Your task to perform on an android device: find which apps use the phone's location Image 0: 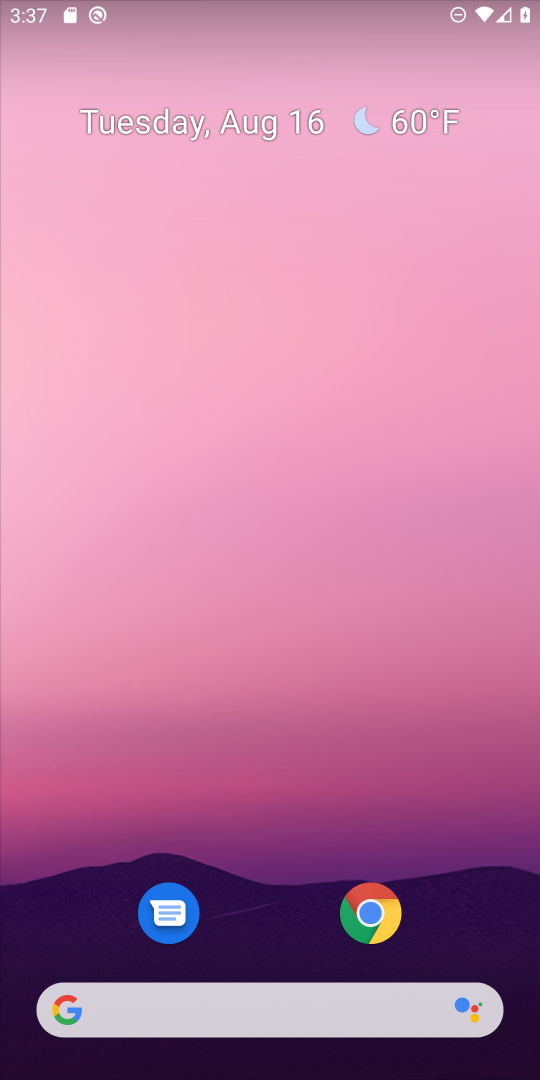
Step 0: drag from (470, 794) to (405, 111)
Your task to perform on an android device: find which apps use the phone's location Image 1: 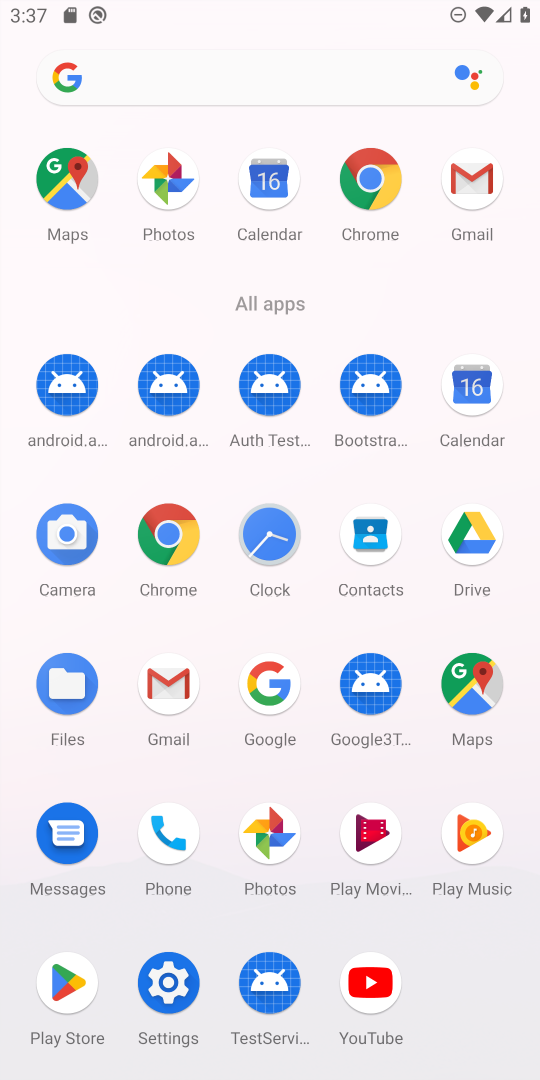
Step 1: click (168, 987)
Your task to perform on an android device: find which apps use the phone's location Image 2: 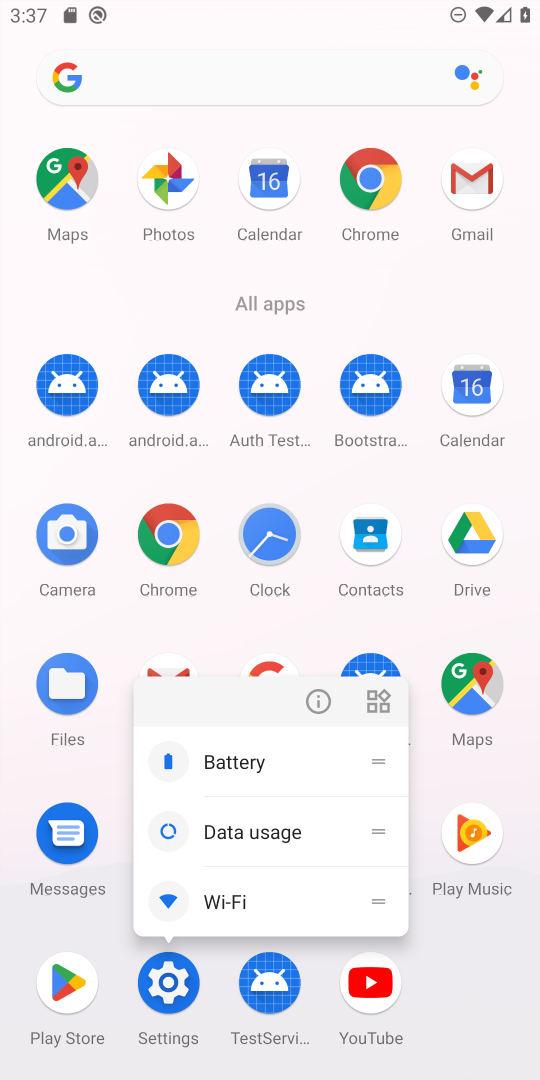
Step 2: click (169, 980)
Your task to perform on an android device: find which apps use the phone's location Image 3: 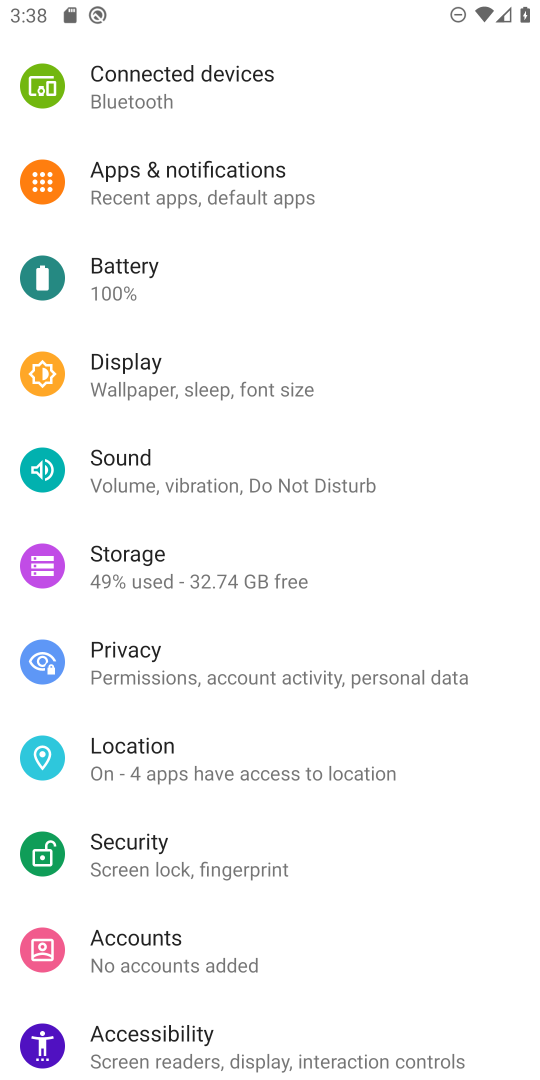
Step 3: click (118, 764)
Your task to perform on an android device: find which apps use the phone's location Image 4: 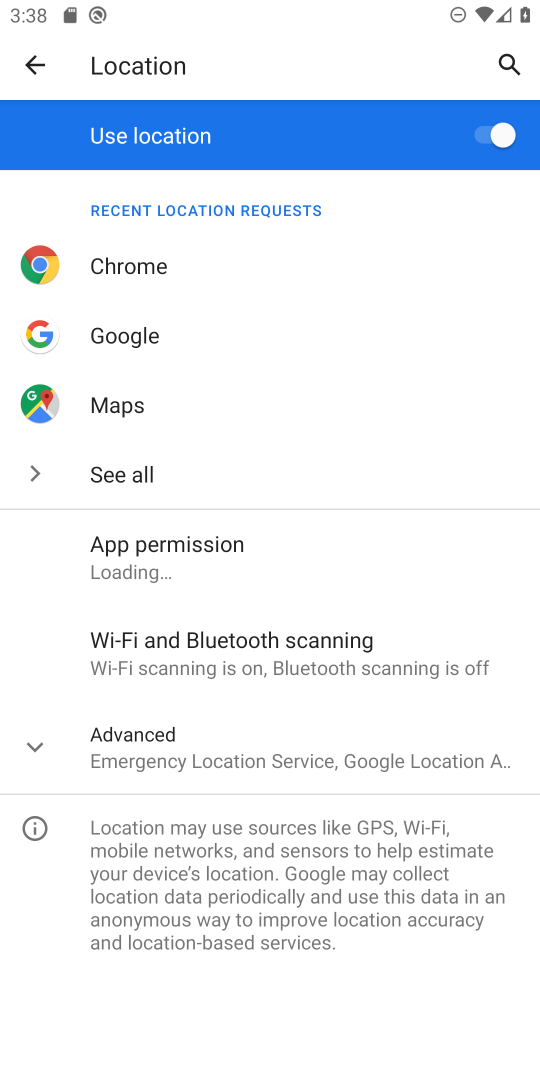
Step 4: click (39, 741)
Your task to perform on an android device: find which apps use the phone's location Image 5: 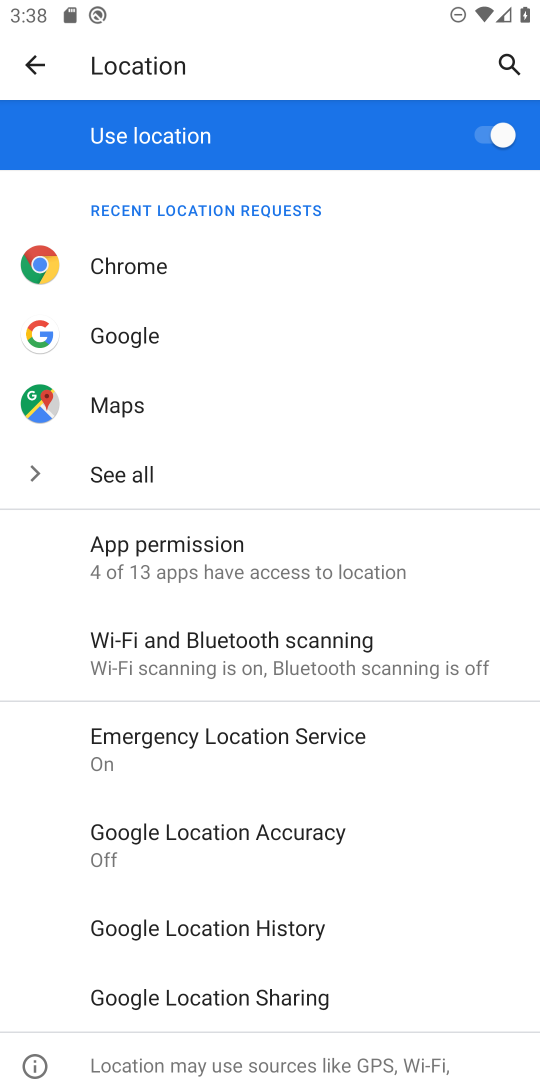
Step 5: drag from (370, 910) to (361, 777)
Your task to perform on an android device: find which apps use the phone's location Image 6: 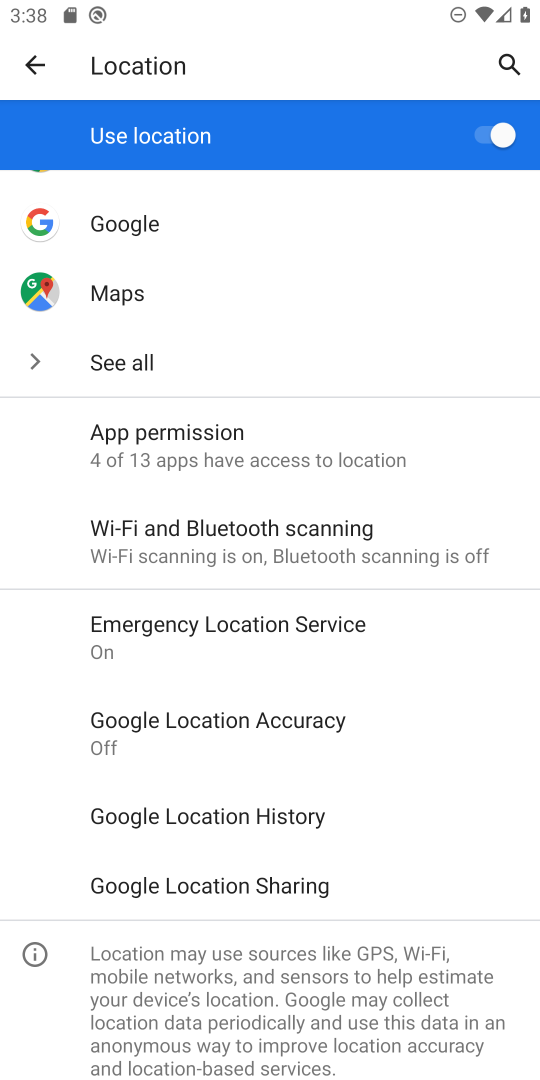
Step 6: click (183, 439)
Your task to perform on an android device: find which apps use the phone's location Image 7: 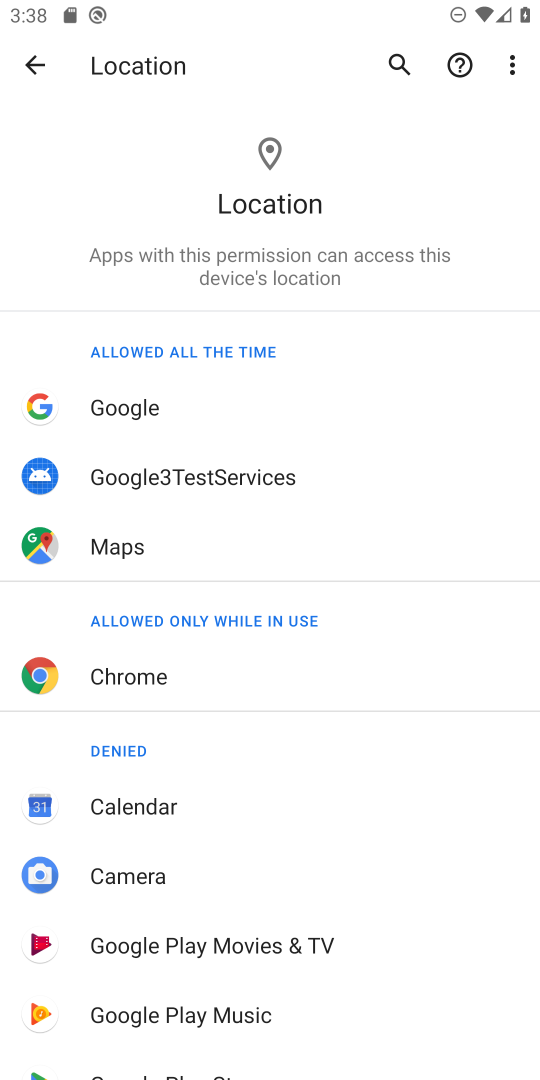
Step 7: task complete